Your task to perform on an android device: Open the calendar app, open the side menu, and click the "Day" option Image 0: 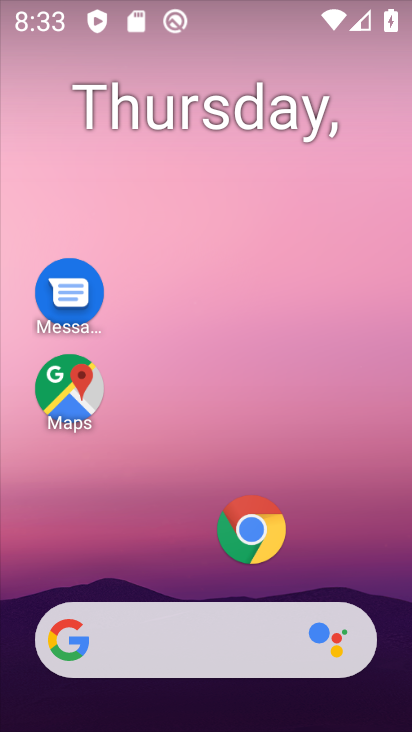
Step 0: click (206, 113)
Your task to perform on an android device: Open the calendar app, open the side menu, and click the "Day" option Image 1: 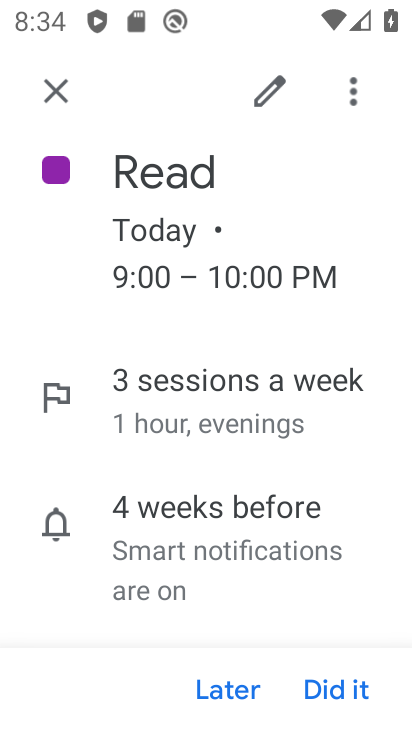
Step 1: click (60, 121)
Your task to perform on an android device: Open the calendar app, open the side menu, and click the "Day" option Image 2: 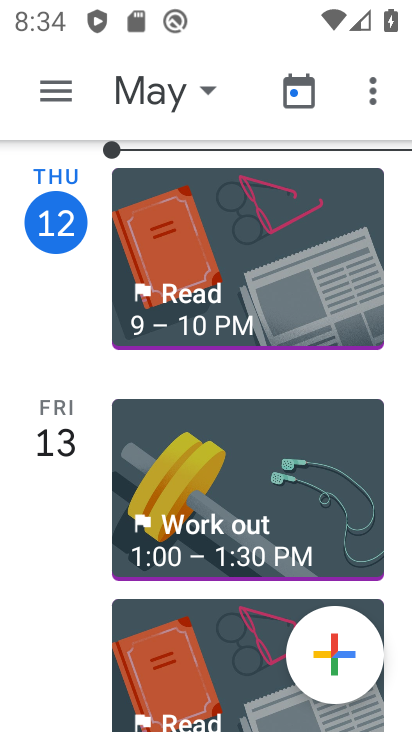
Step 2: click (42, 54)
Your task to perform on an android device: Open the calendar app, open the side menu, and click the "Day" option Image 3: 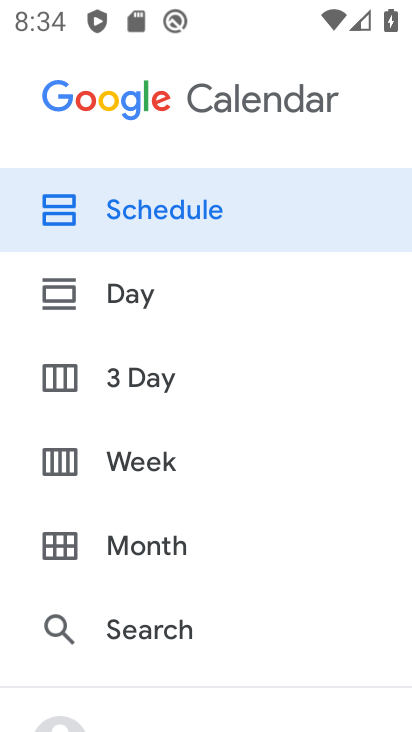
Step 3: click (196, 315)
Your task to perform on an android device: Open the calendar app, open the side menu, and click the "Day" option Image 4: 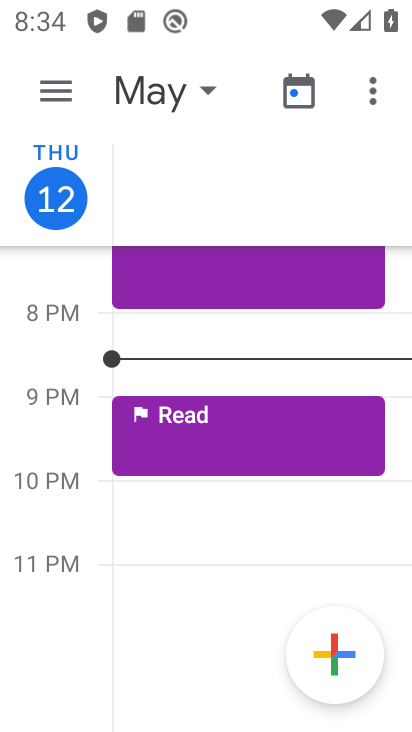
Step 4: task complete